Your task to perform on an android device: Is it going to rain tomorrow? Image 0: 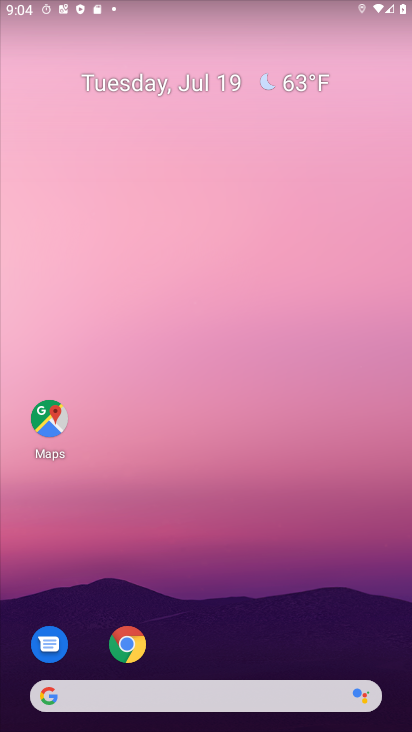
Step 0: click (249, 296)
Your task to perform on an android device: Is it going to rain tomorrow? Image 1: 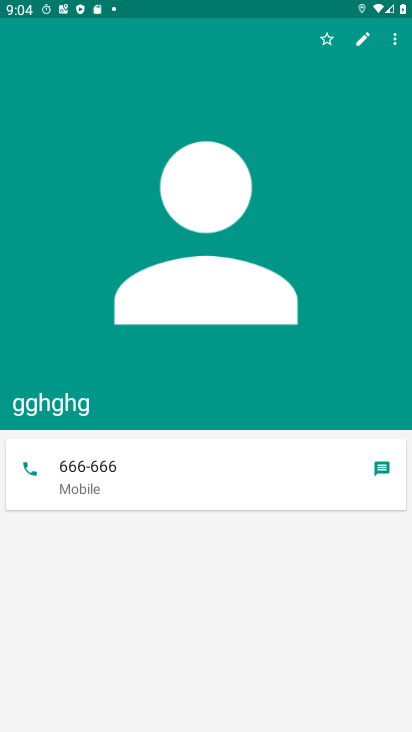
Step 1: press back button
Your task to perform on an android device: Is it going to rain tomorrow? Image 2: 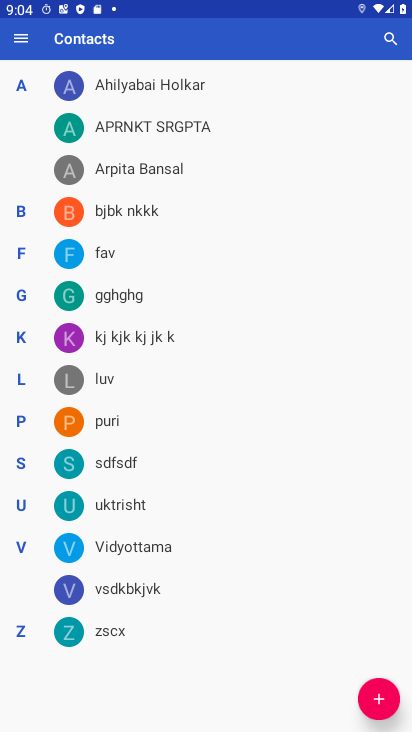
Step 2: press home button
Your task to perform on an android device: Is it going to rain tomorrow? Image 3: 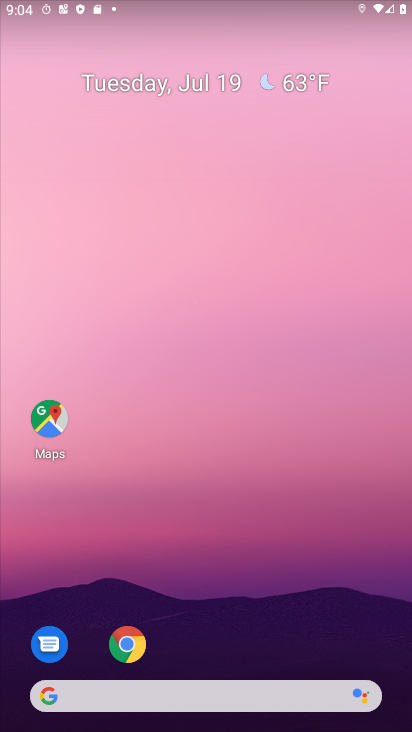
Step 3: drag from (17, 172) to (411, 456)
Your task to perform on an android device: Is it going to rain tomorrow? Image 4: 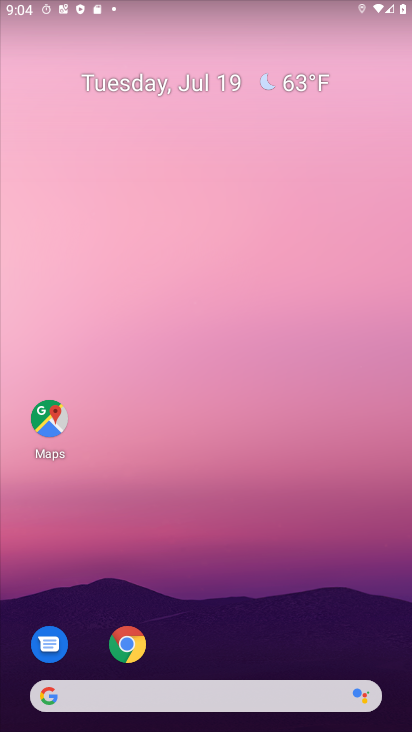
Step 4: drag from (18, 223) to (365, 477)
Your task to perform on an android device: Is it going to rain tomorrow? Image 5: 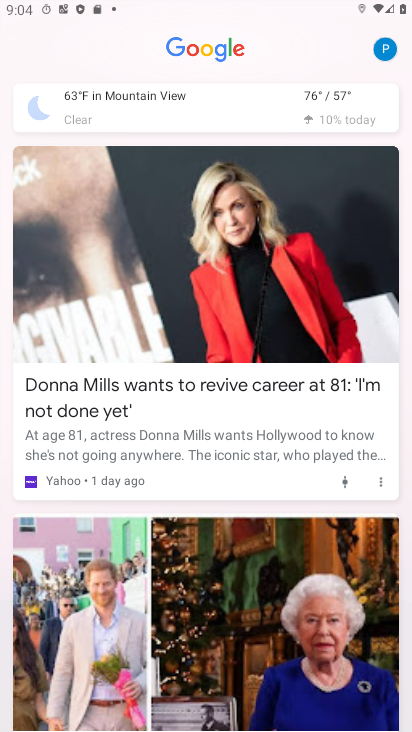
Step 5: click (125, 105)
Your task to perform on an android device: Is it going to rain tomorrow? Image 6: 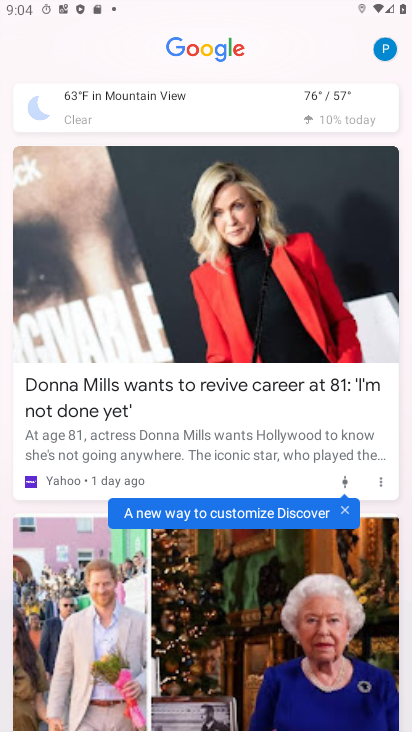
Step 6: click (127, 105)
Your task to perform on an android device: Is it going to rain tomorrow? Image 7: 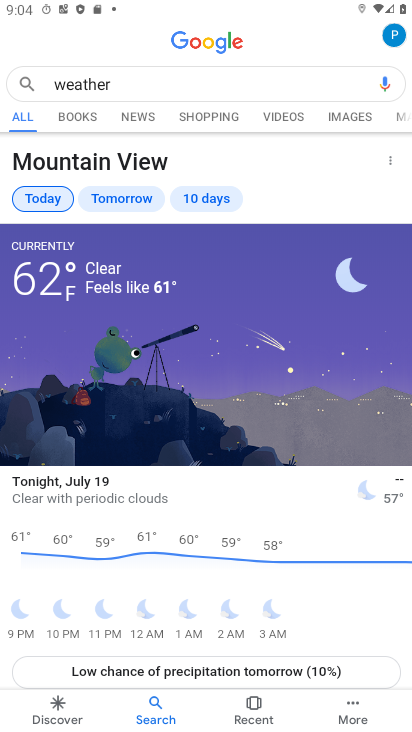
Step 7: task complete